Your task to perform on an android device: Go to wifi settings Image 0: 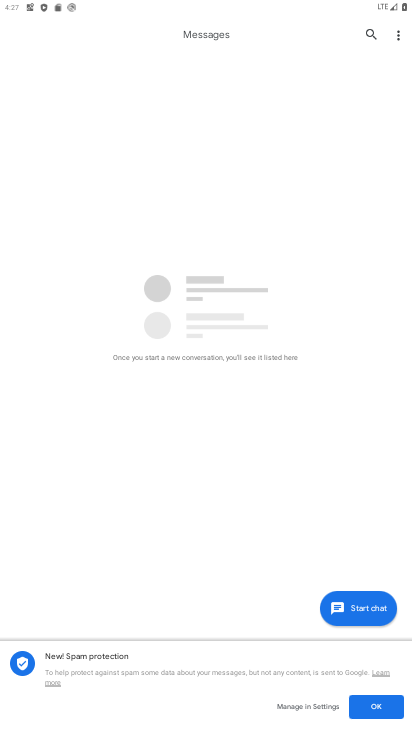
Step 0: press home button
Your task to perform on an android device: Go to wifi settings Image 1: 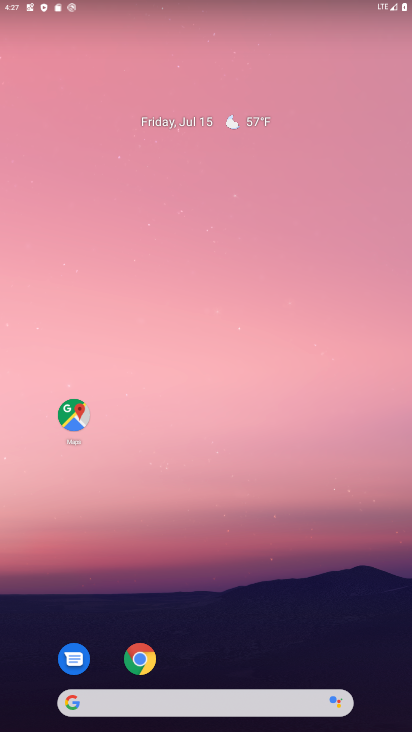
Step 1: drag from (232, 644) to (84, 37)
Your task to perform on an android device: Go to wifi settings Image 2: 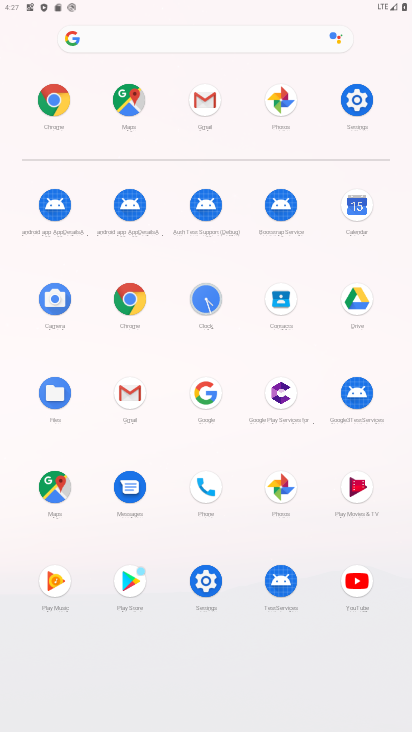
Step 2: click (346, 103)
Your task to perform on an android device: Go to wifi settings Image 3: 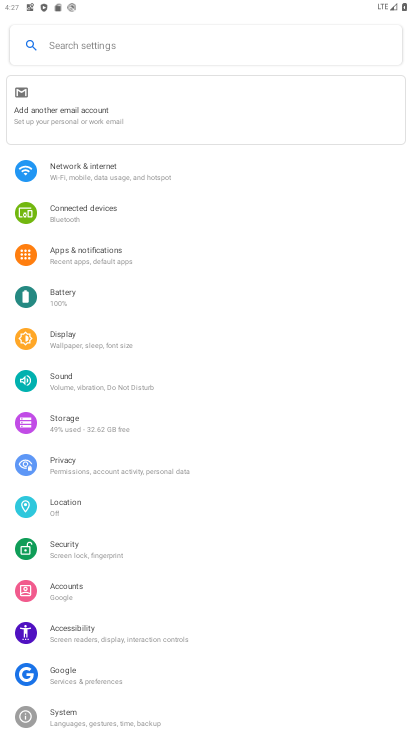
Step 3: click (241, 170)
Your task to perform on an android device: Go to wifi settings Image 4: 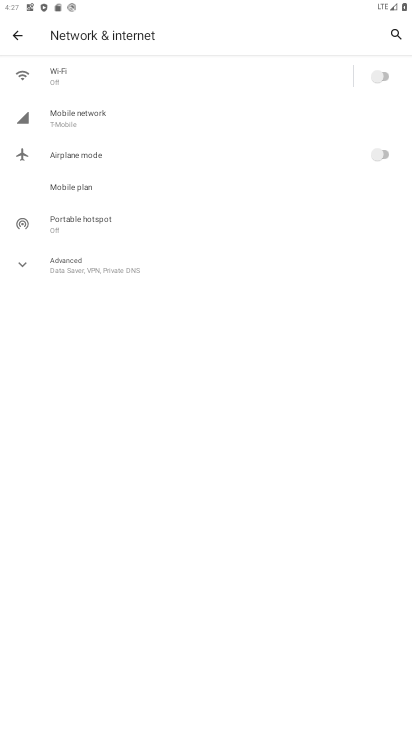
Step 4: click (206, 81)
Your task to perform on an android device: Go to wifi settings Image 5: 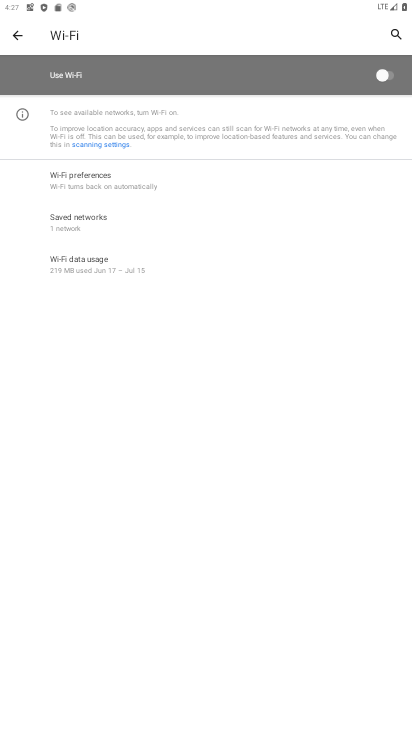
Step 5: task complete